Your task to perform on an android device: read, delete, or share a saved page in the chrome app Image 0: 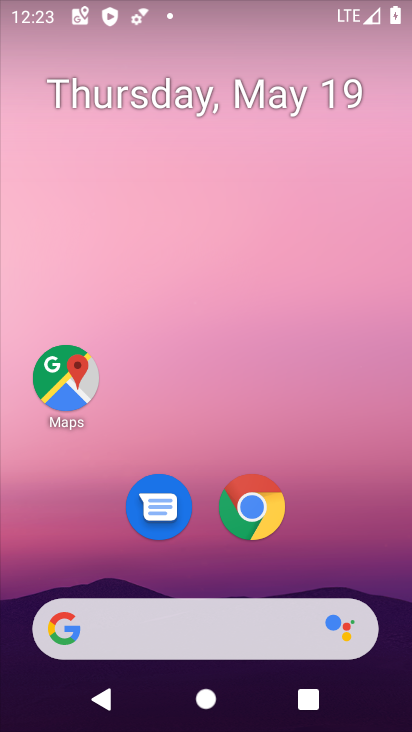
Step 0: click (248, 510)
Your task to perform on an android device: read, delete, or share a saved page in the chrome app Image 1: 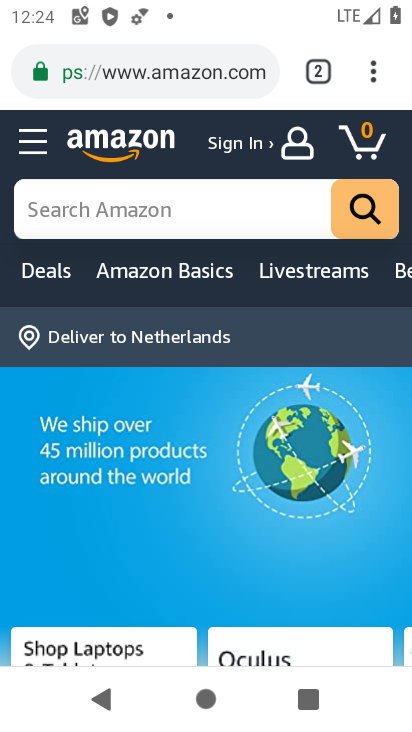
Step 1: click (373, 83)
Your task to perform on an android device: read, delete, or share a saved page in the chrome app Image 2: 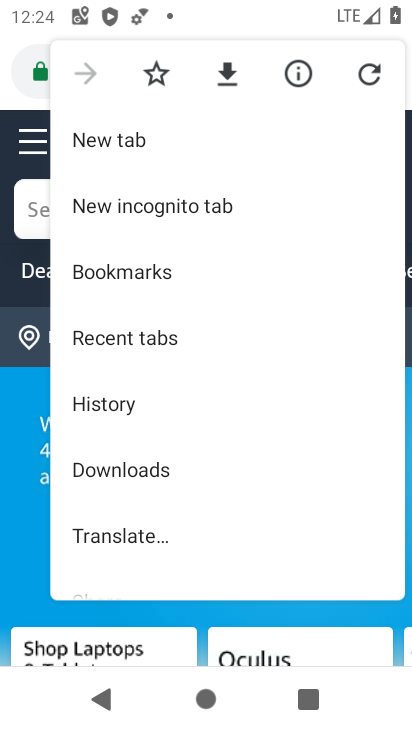
Step 2: click (129, 477)
Your task to perform on an android device: read, delete, or share a saved page in the chrome app Image 3: 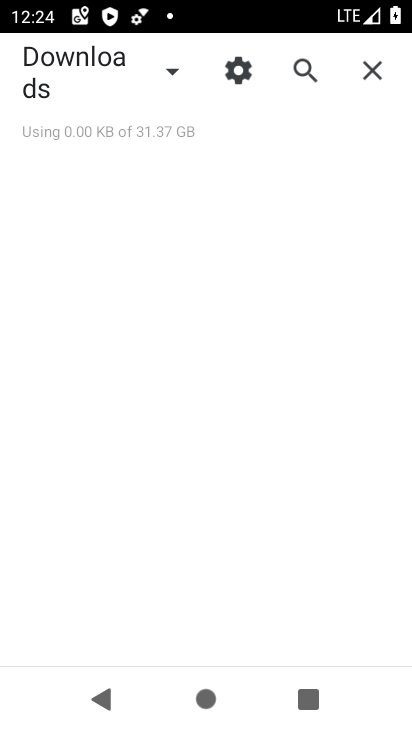
Step 3: task complete